Your task to perform on an android device: Show me recent news Image 0: 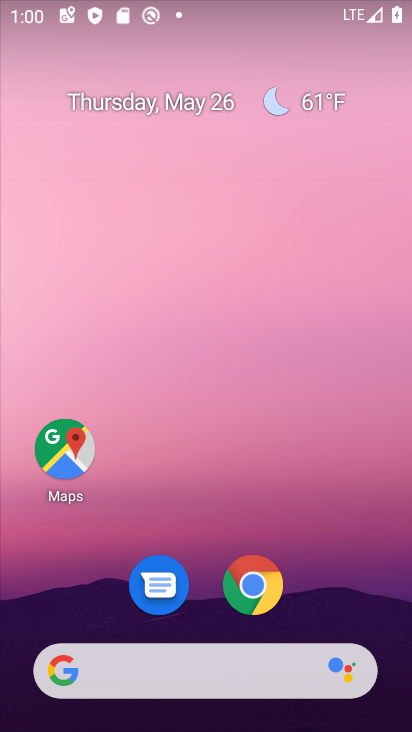
Step 0: click (165, 668)
Your task to perform on an android device: Show me recent news Image 1: 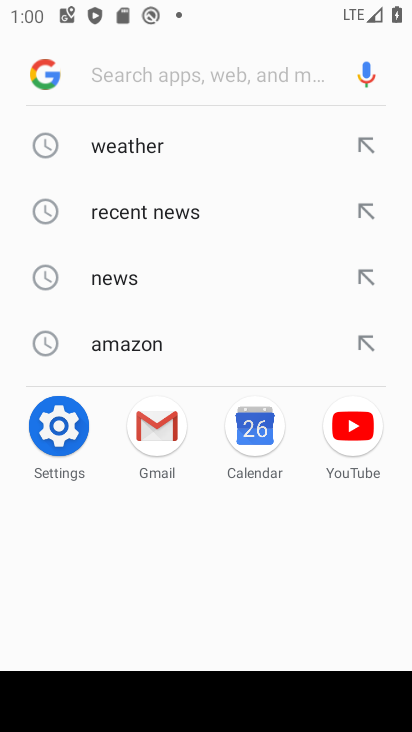
Step 1: click (86, 213)
Your task to perform on an android device: Show me recent news Image 2: 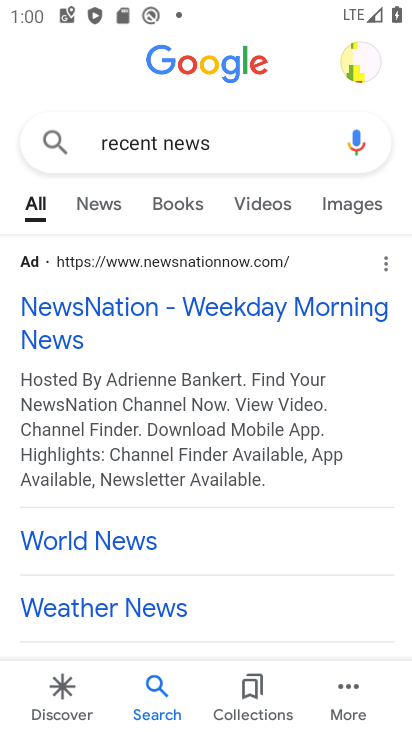
Step 2: click (102, 191)
Your task to perform on an android device: Show me recent news Image 3: 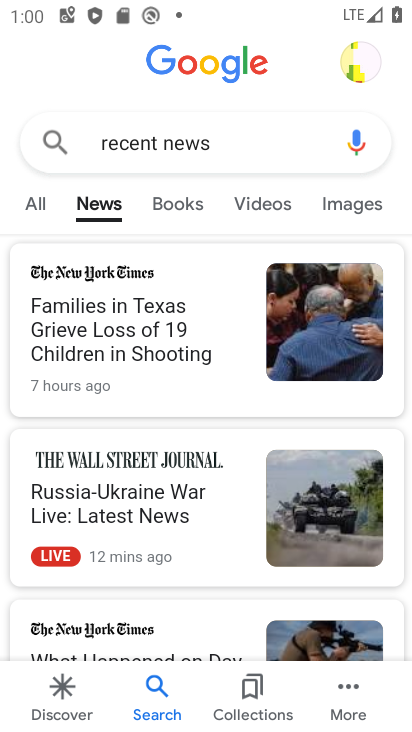
Step 3: task complete